Your task to perform on an android device: check google app version Image 0: 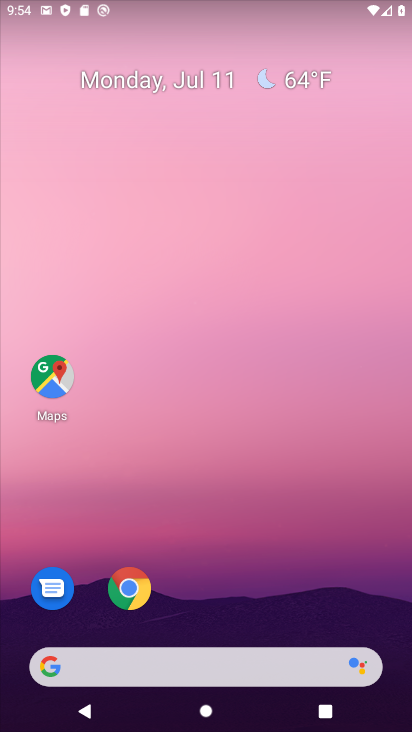
Step 0: drag from (271, 653) to (347, 23)
Your task to perform on an android device: check google app version Image 1: 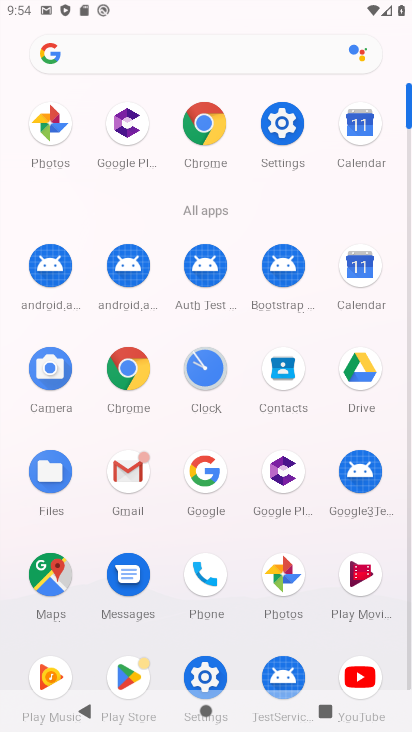
Step 1: click (207, 676)
Your task to perform on an android device: check google app version Image 2: 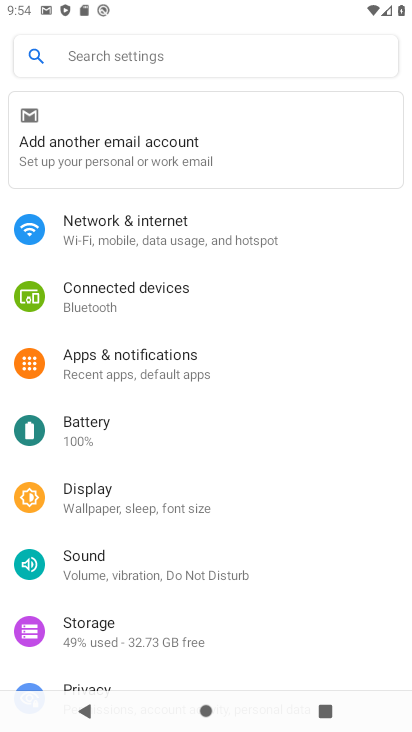
Step 2: click (185, 378)
Your task to perform on an android device: check google app version Image 3: 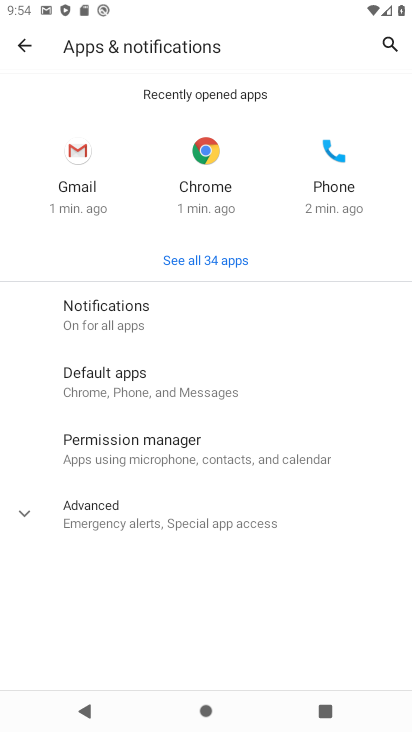
Step 3: click (225, 264)
Your task to perform on an android device: check google app version Image 4: 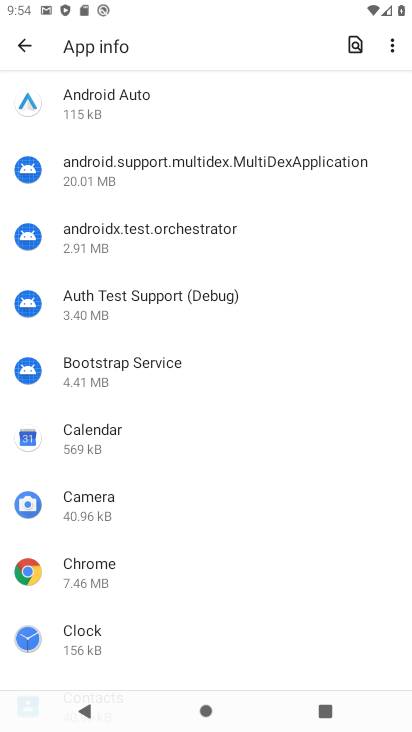
Step 4: drag from (142, 629) to (246, 119)
Your task to perform on an android device: check google app version Image 5: 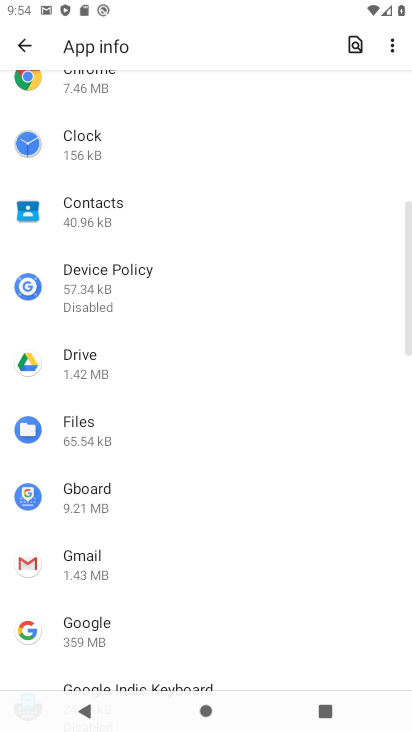
Step 5: click (98, 637)
Your task to perform on an android device: check google app version Image 6: 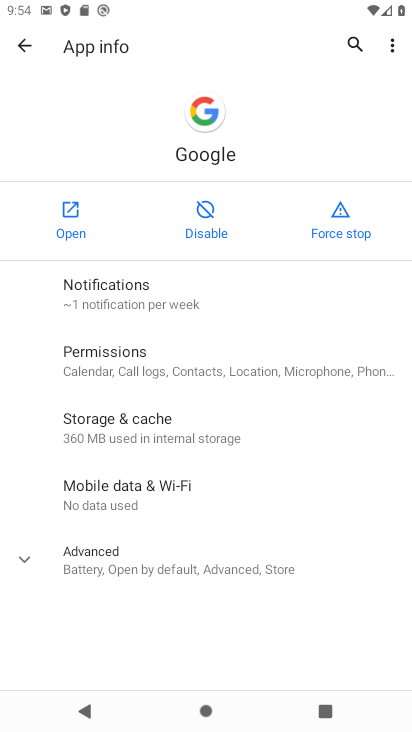
Step 6: click (165, 569)
Your task to perform on an android device: check google app version Image 7: 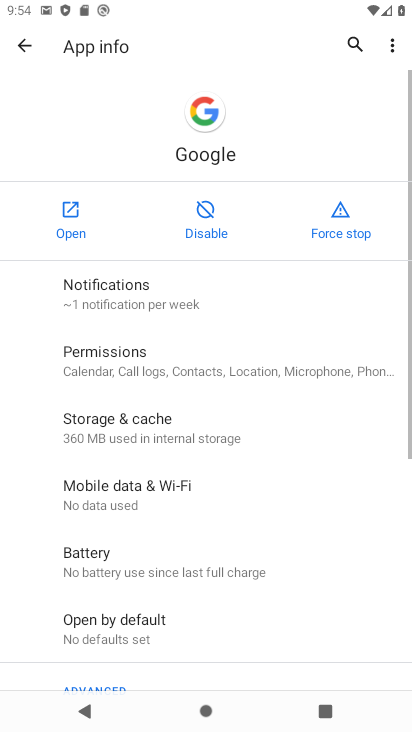
Step 7: task complete